Your task to perform on an android device: Empty the shopping cart on target. Add usb-a to usb-b to the cart on target, then select checkout. Image 0: 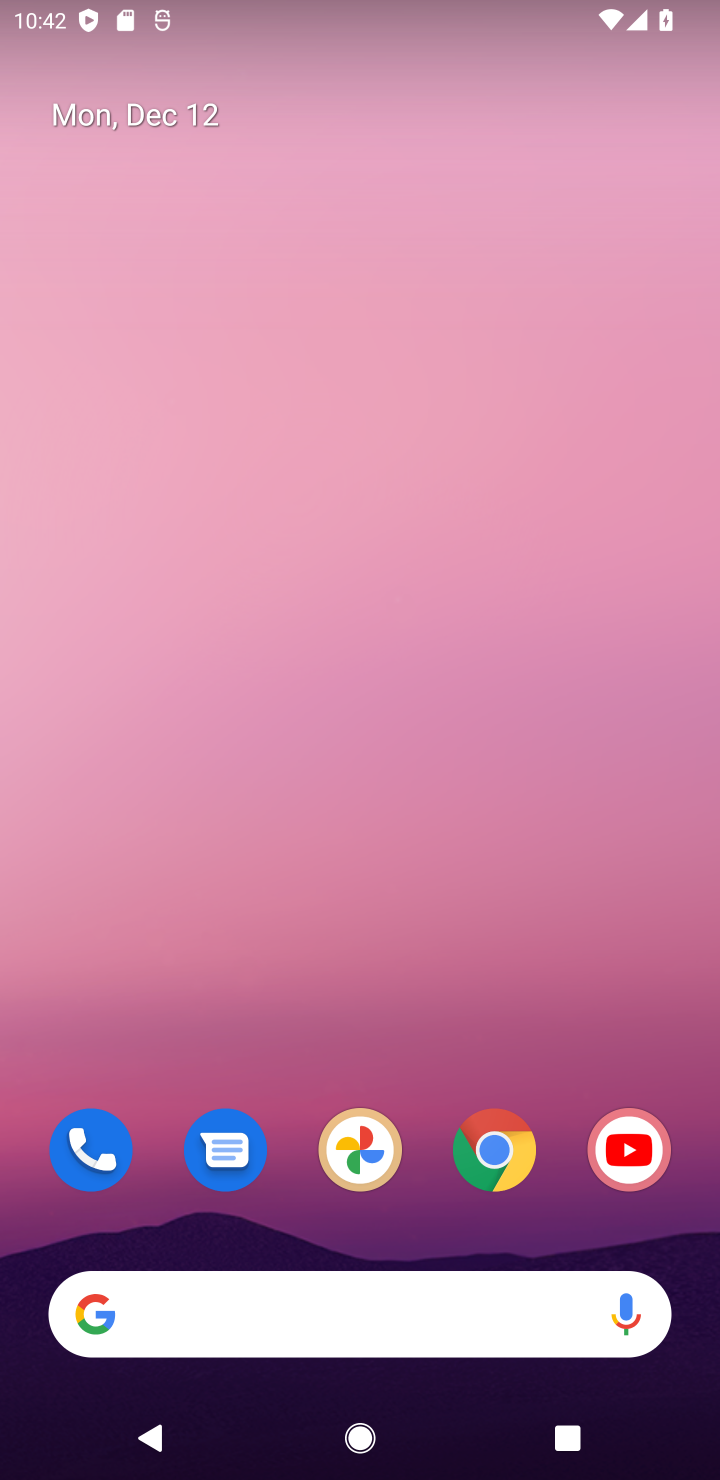
Step 0: click (489, 1151)
Your task to perform on an android device: Empty the shopping cart on target. Add usb-a to usb-b to the cart on target, then select checkout. Image 1: 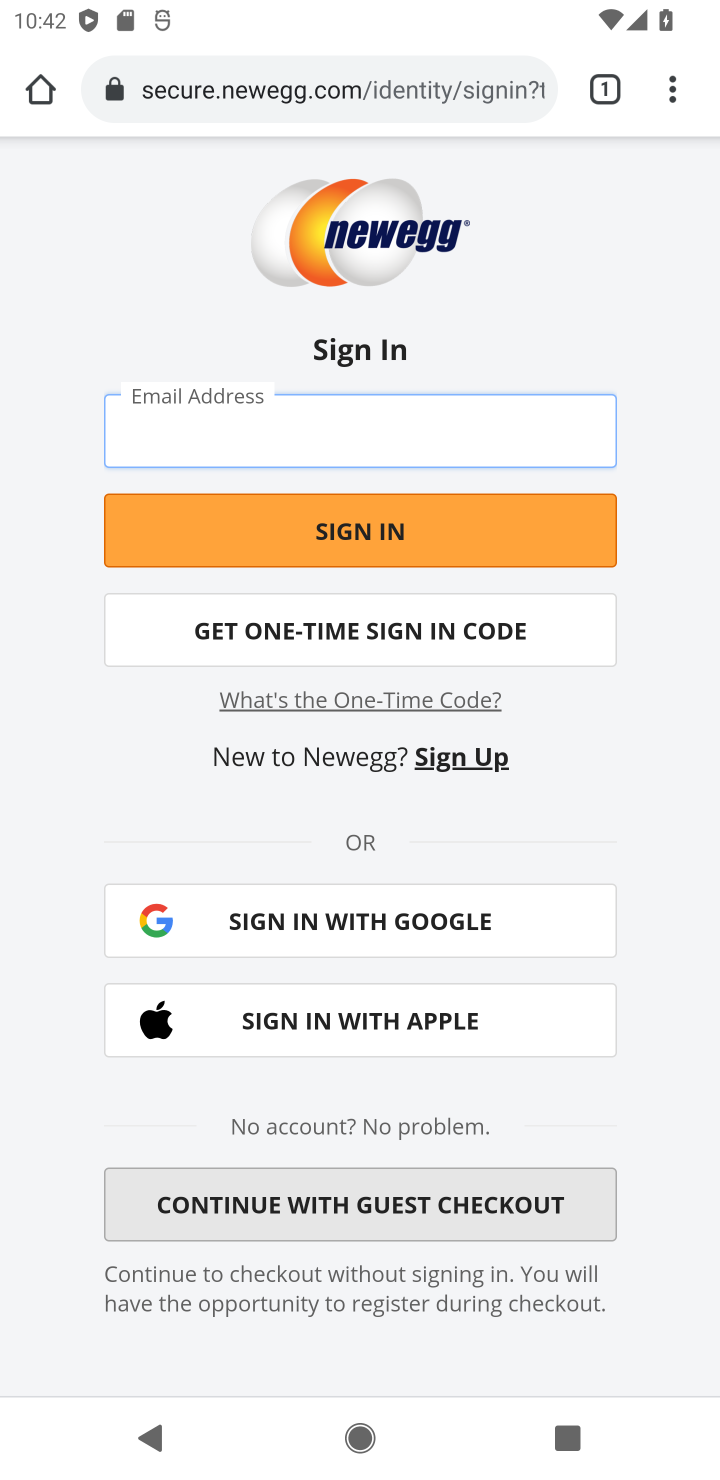
Step 1: click (249, 81)
Your task to perform on an android device: Empty the shopping cart on target. Add usb-a to usb-b to the cart on target, then select checkout. Image 2: 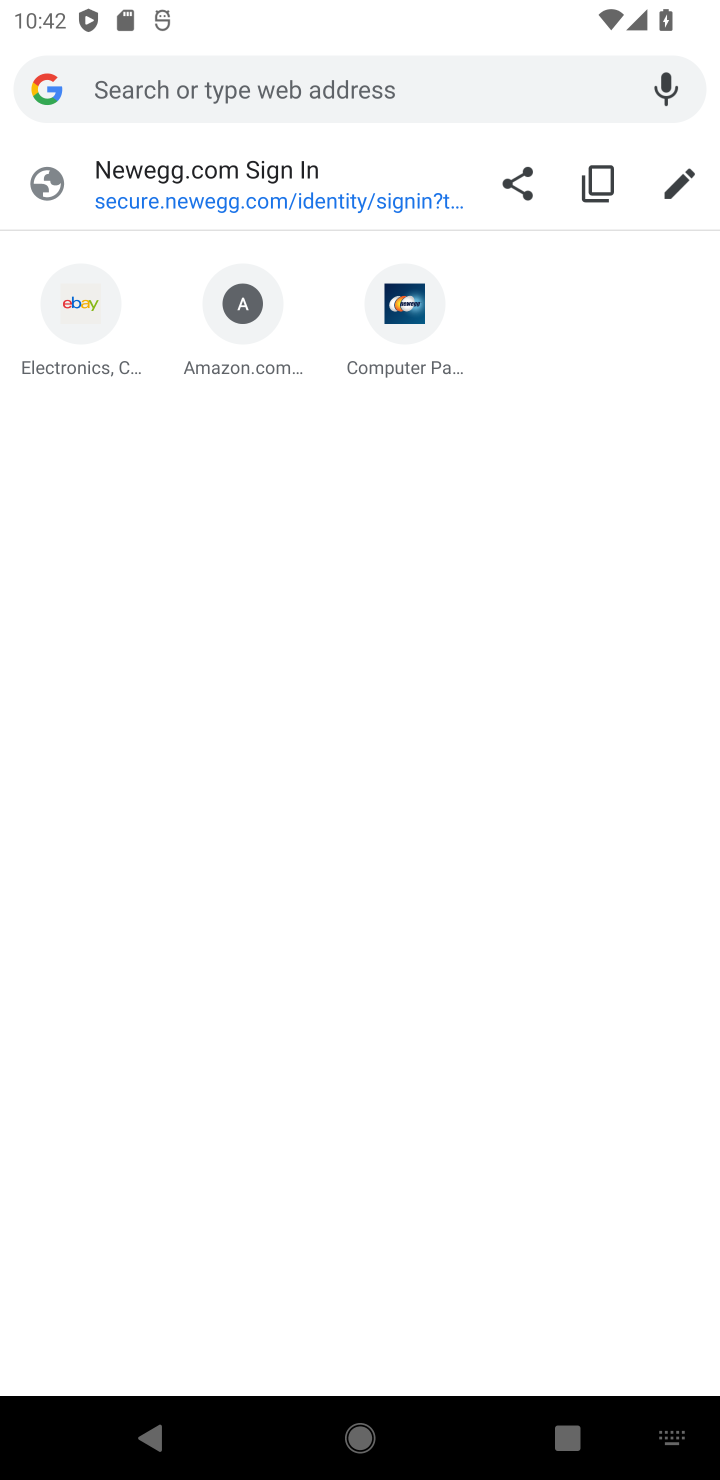
Step 2: type "target.com"
Your task to perform on an android device: Empty the shopping cart on target. Add usb-a to usb-b to the cart on target, then select checkout. Image 3: 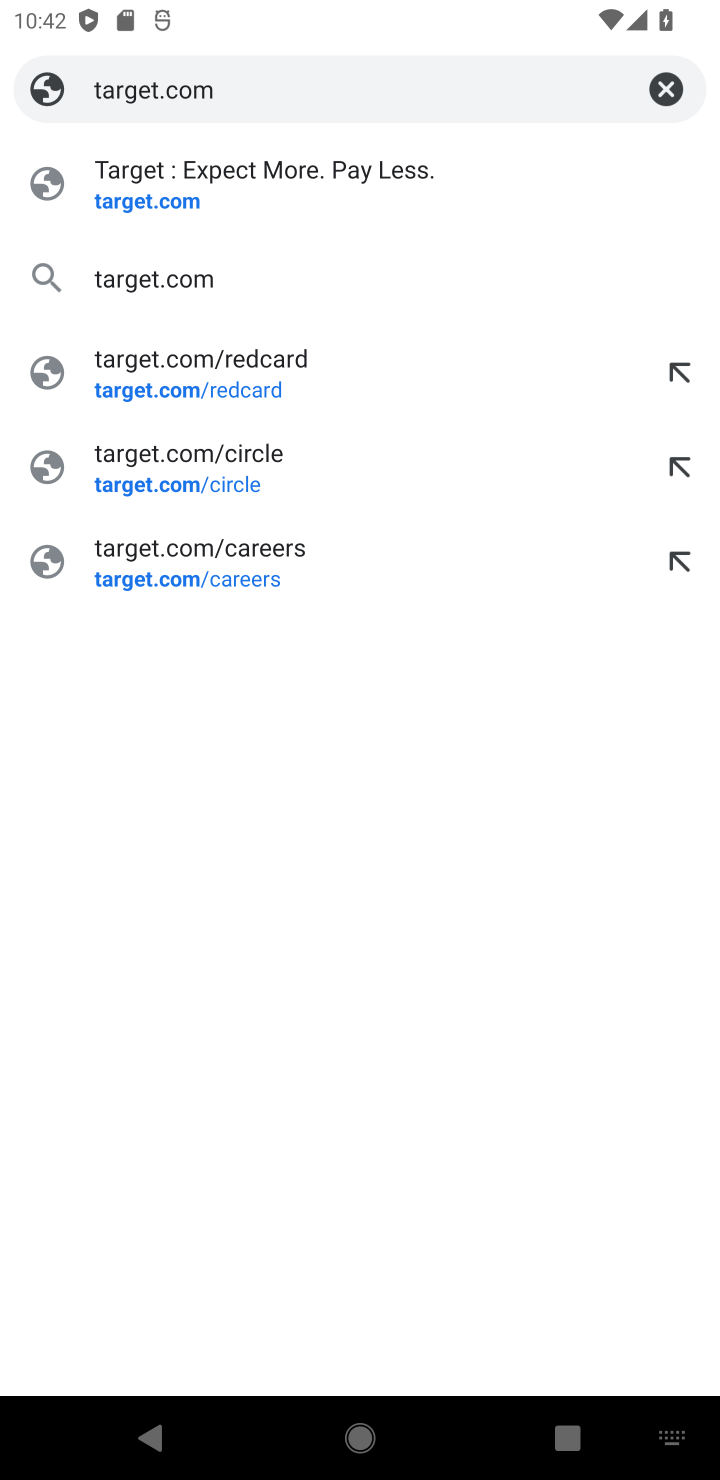
Step 3: click (106, 220)
Your task to perform on an android device: Empty the shopping cart on target. Add usb-a to usb-b to the cart on target, then select checkout. Image 4: 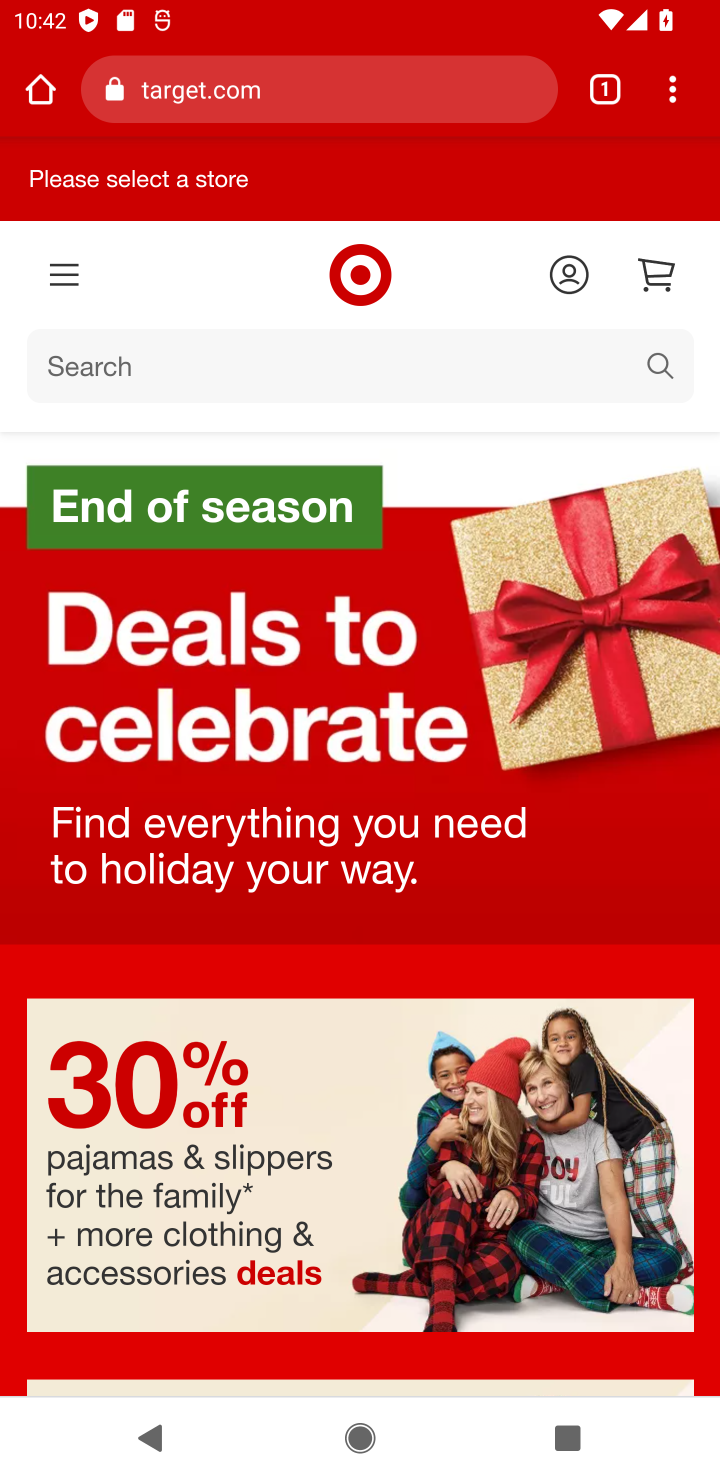
Step 4: click (657, 275)
Your task to perform on an android device: Empty the shopping cart on target. Add usb-a to usb-b to the cart on target, then select checkout. Image 5: 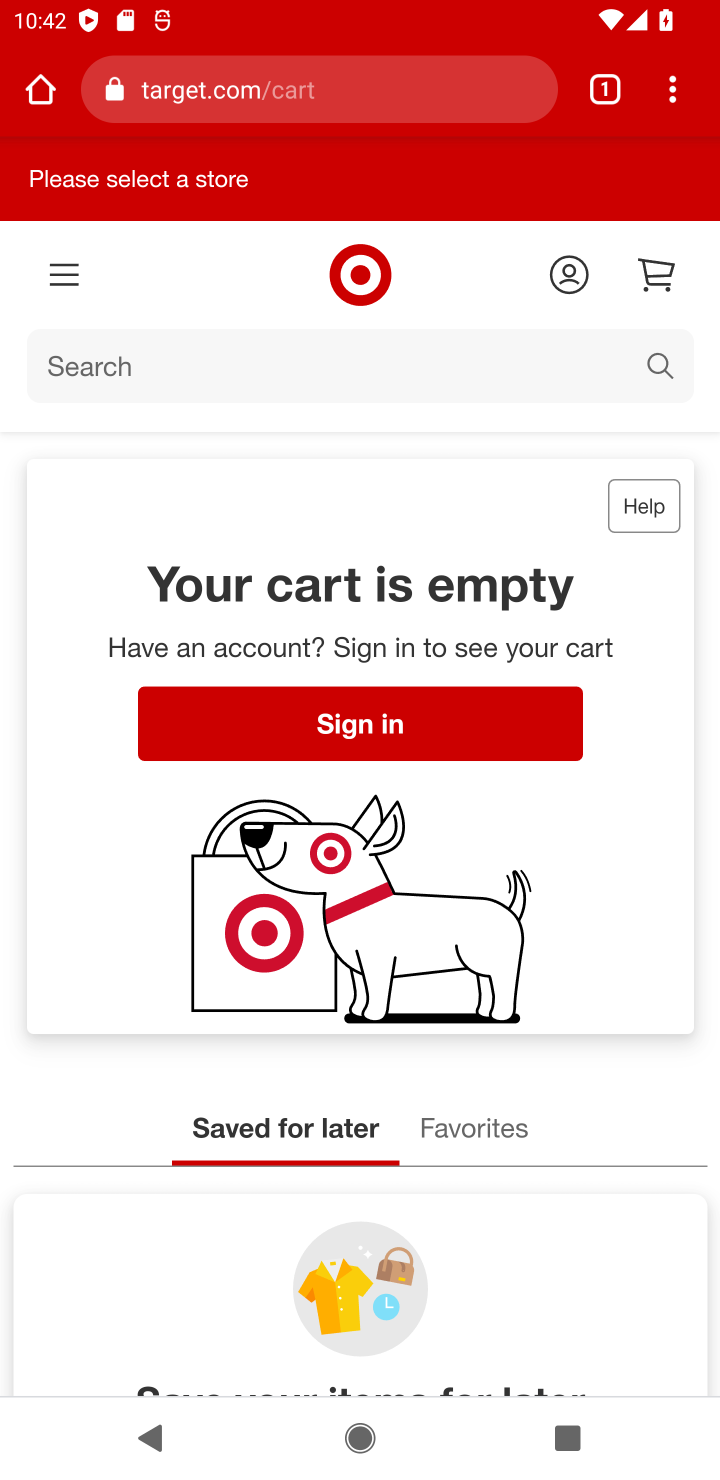
Step 5: click (70, 376)
Your task to perform on an android device: Empty the shopping cart on target. Add usb-a to usb-b to the cart on target, then select checkout. Image 6: 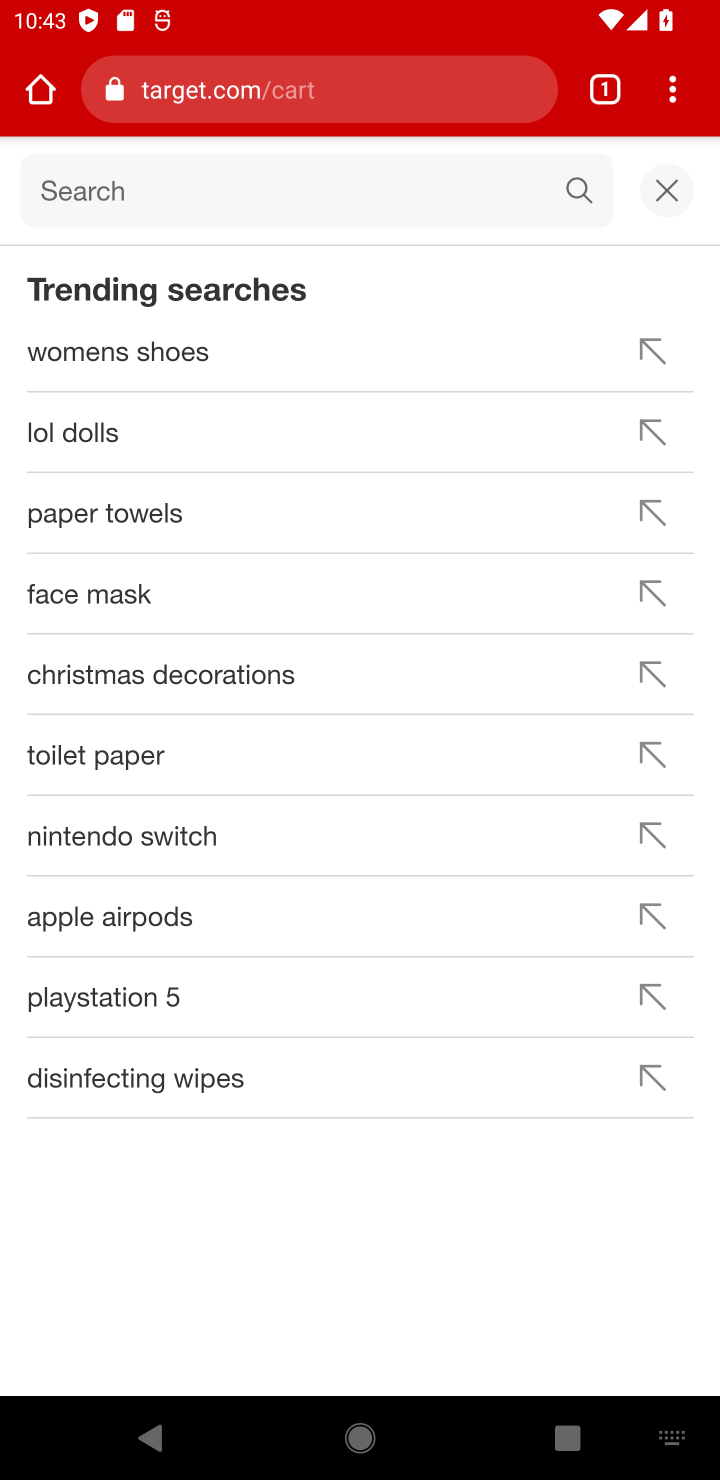
Step 6: type "usb-a to usb-b"
Your task to perform on an android device: Empty the shopping cart on target. Add usb-a to usb-b to the cart on target, then select checkout. Image 7: 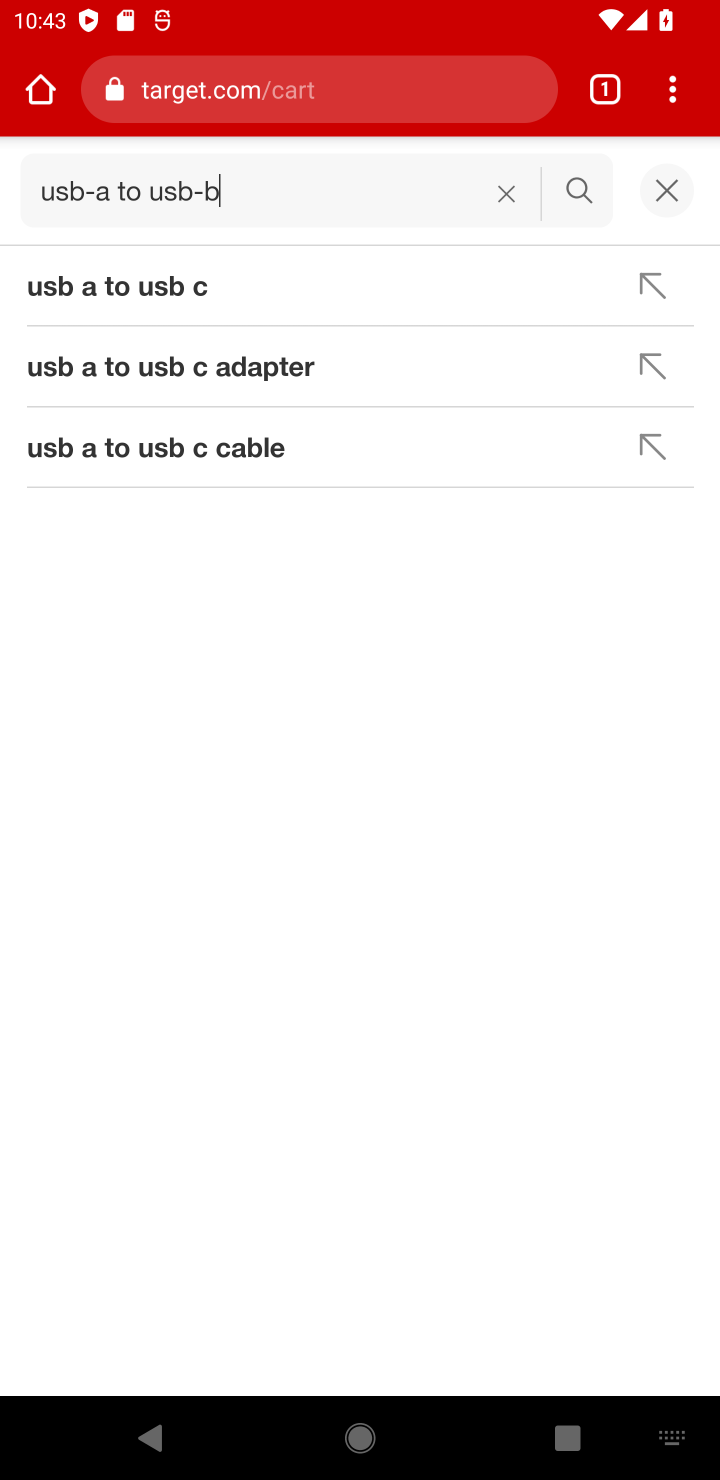
Step 7: click (584, 191)
Your task to perform on an android device: Empty the shopping cart on target. Add usb-a to usb-b to the cart on target, then select checkout. Image 8: 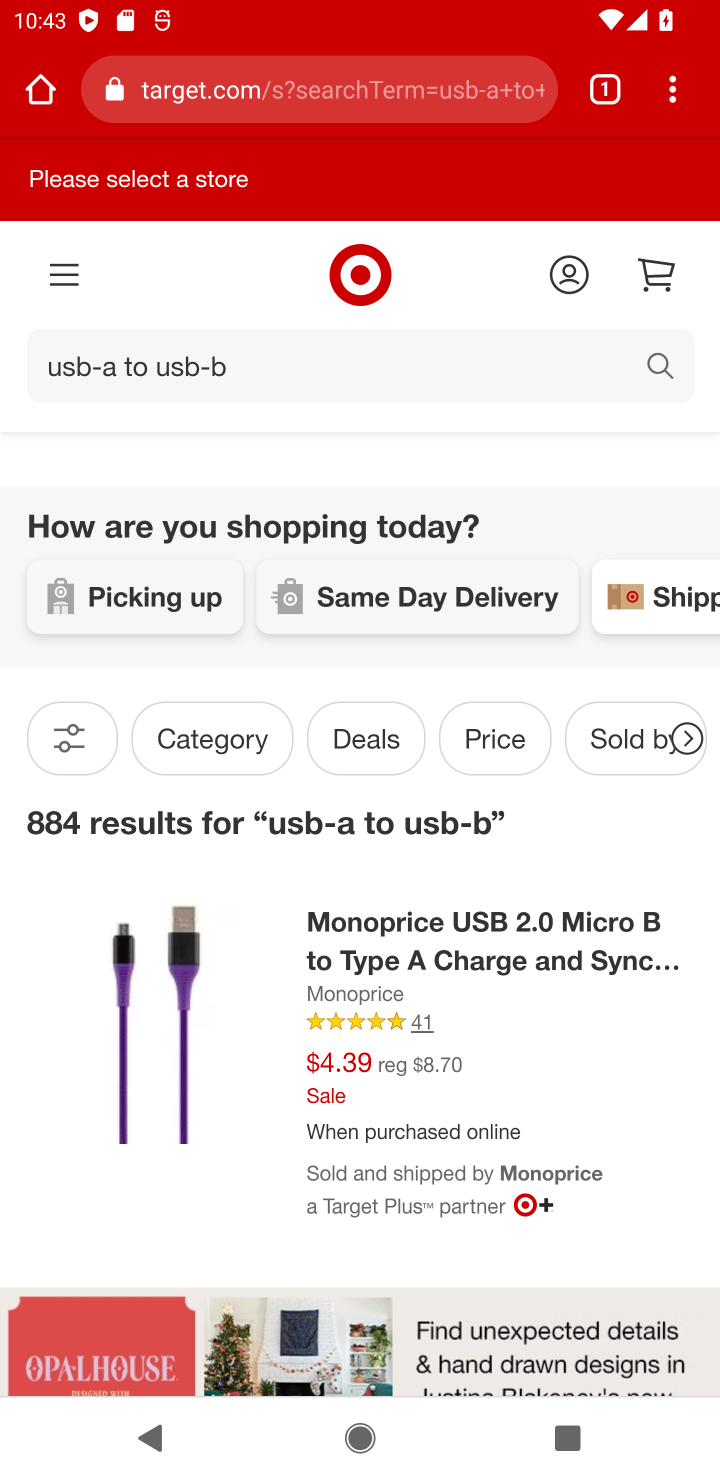
Step 8: drag from (234, 987) to (291, 423)
Your task to perform on an android device: Empty the shopping cart on target. Add usb-a to usb-b to the cart on target, then select checkout. Image 9: 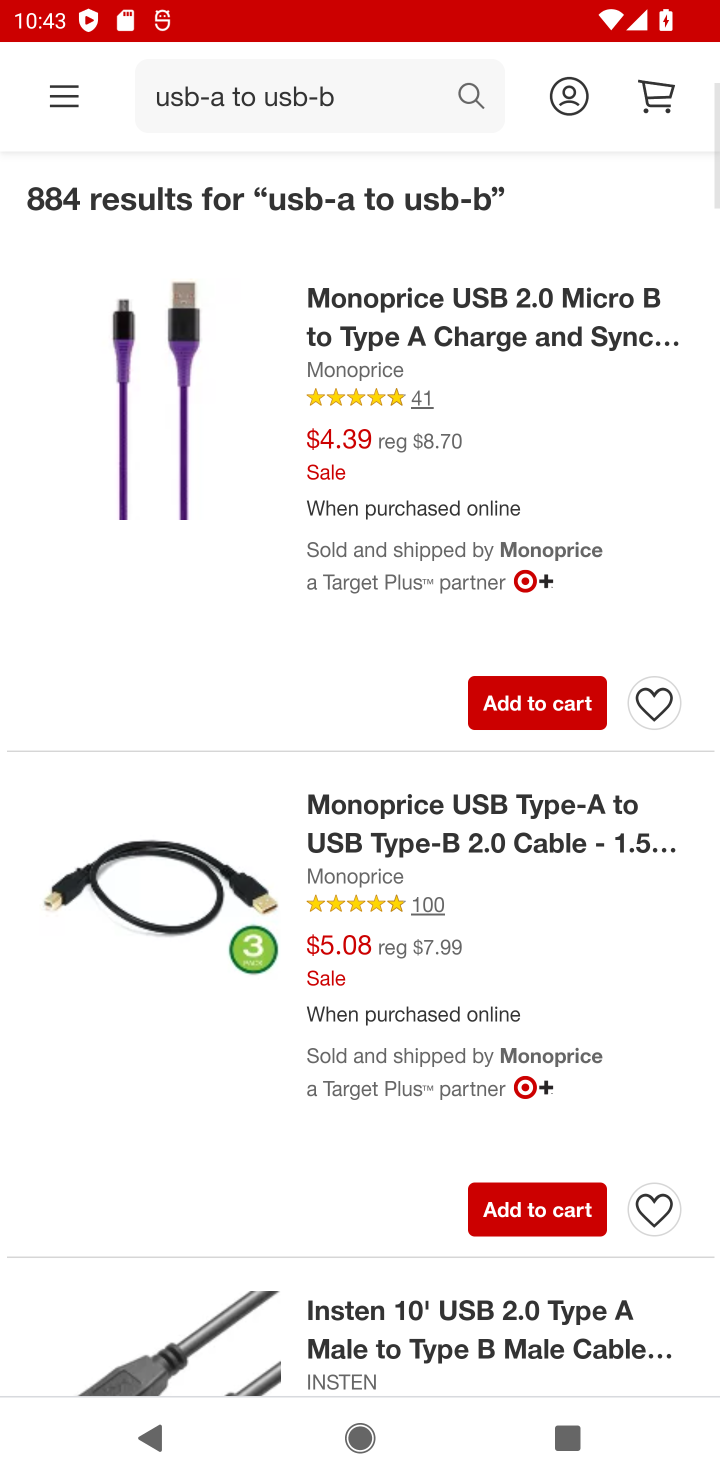
Step 9: click (531, 1214)
Your task to perform on an android device: Empty the shopping cart on target. Add usb-a to usb-b to the cart on target, then select checkout. Image 10: 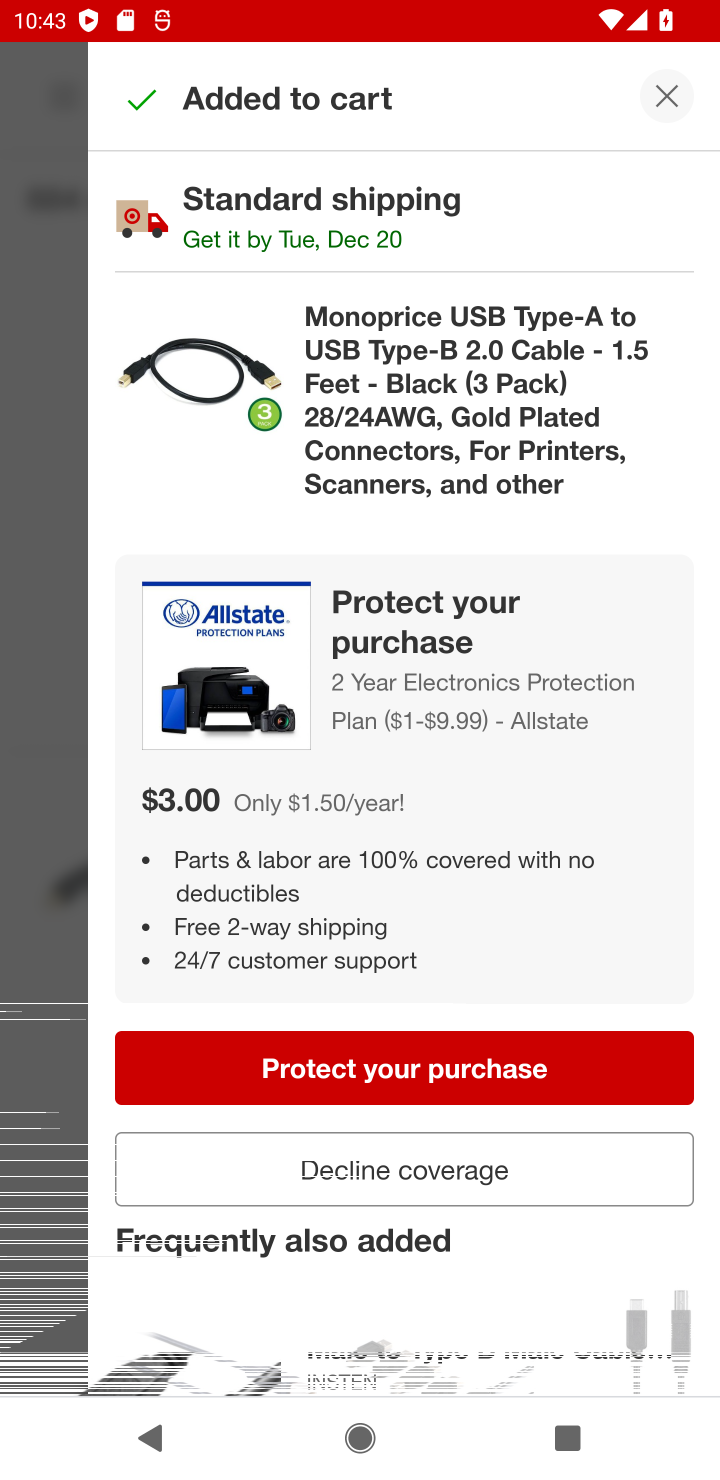
Step 10: click (672, 104)
Your task to perform on an android device: Empty the shopping cart on target. Add usb-a to usb-b to the cart on target, then select checkout. Image 11: 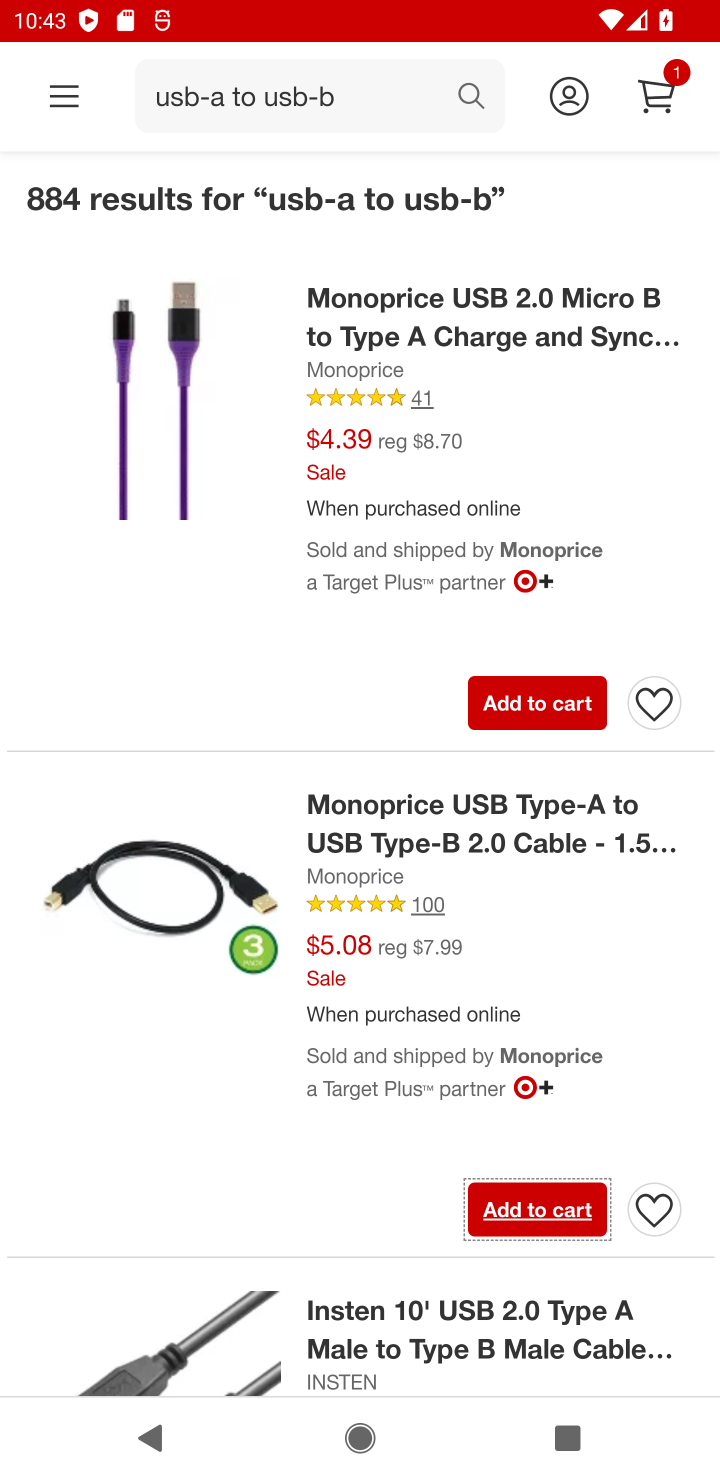
Step 11: click (659, 96)
Your task to perform on an android device: Empty the shopping cart on target. Add usb-a to usb-b to the cart on target, then select checkout. Image 12: 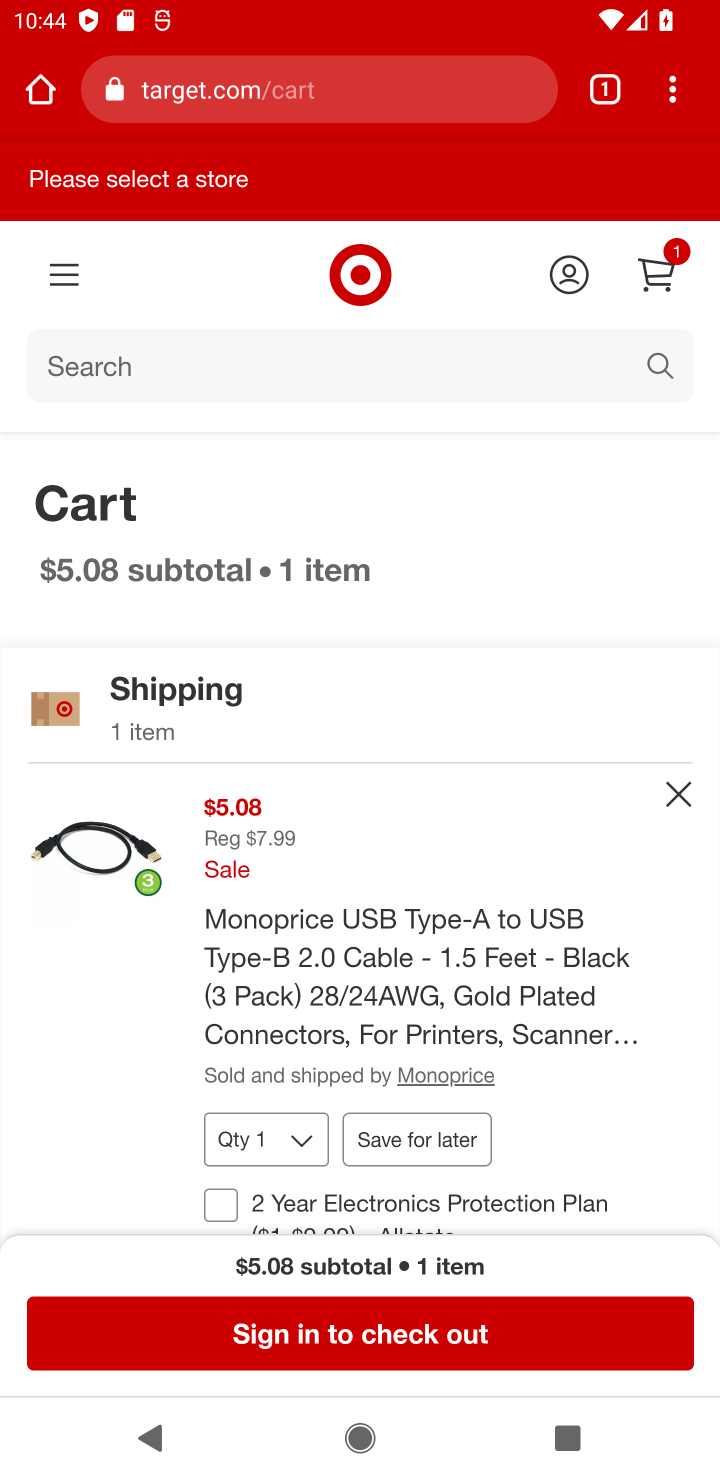
Step 12: click (368, 1341)
Your task to perform on an android device: Empty the shopping cart on target. Add usb-a to usb-b to the cart on target, then select checkout. Image 13: 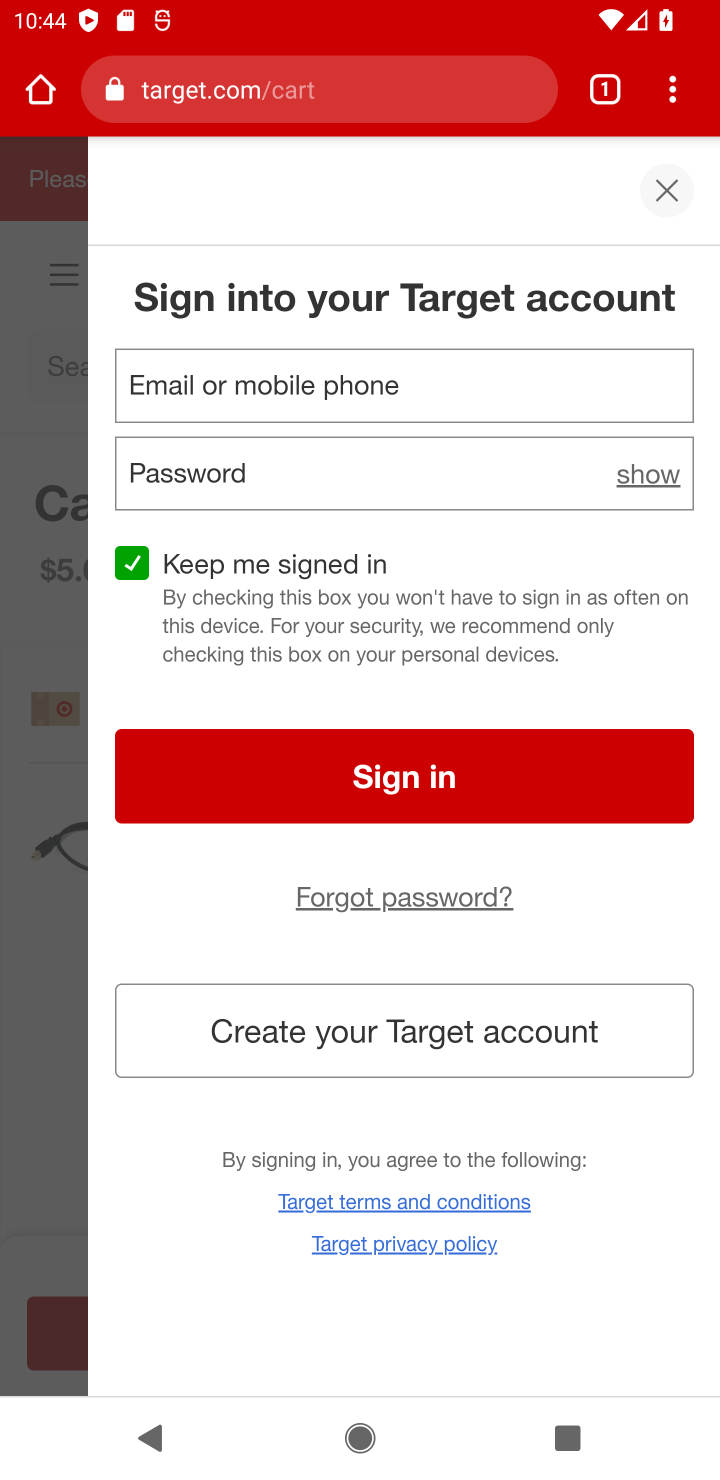
Step 13: task complete